Your task to perform on an android device: Search for Italian restaurants on Maps Image 0: 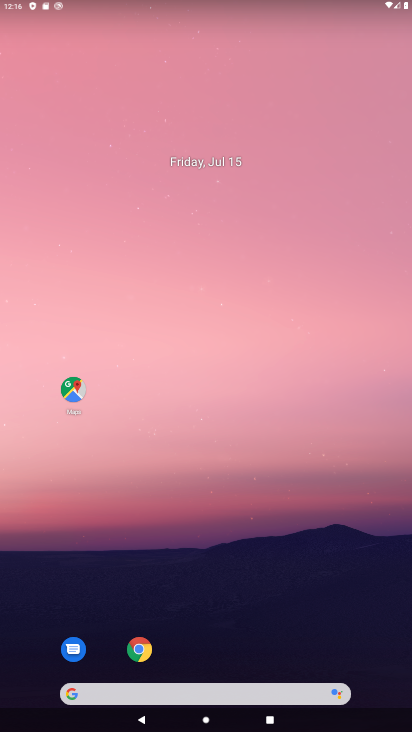
Step 0: click (63, 393)
Your task to perform on an android device: Search for Italian restaurants on Maps Image 1: 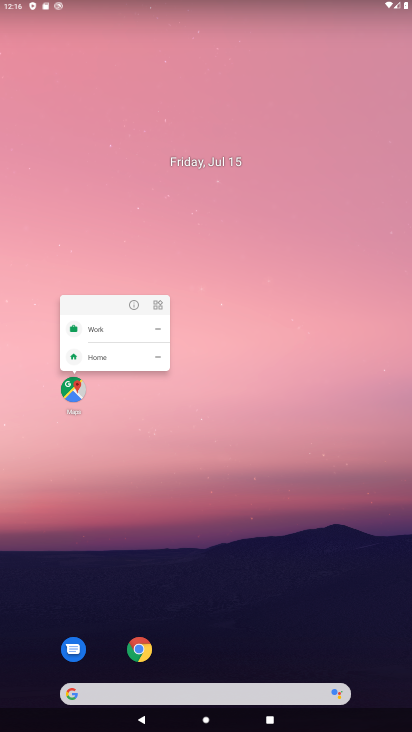
Step 1: click (65, 386)
Your task to perform on an android device: Search for Italian restaurants on Maps Image 2: 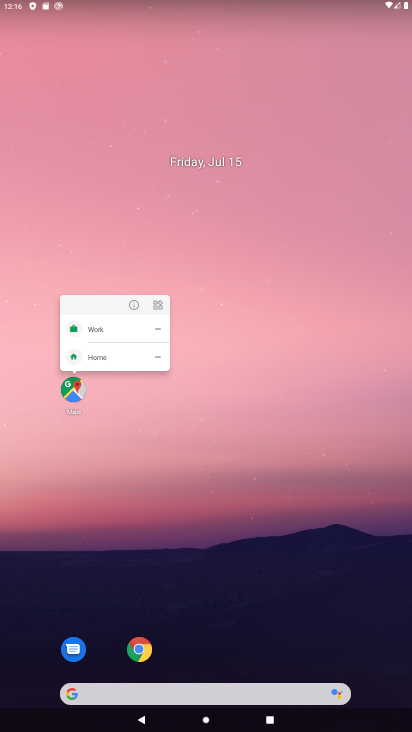
Step 2: click (75, 388)
Your task to perform on an android device: Search for Italian restaurants on Maps Image 3: 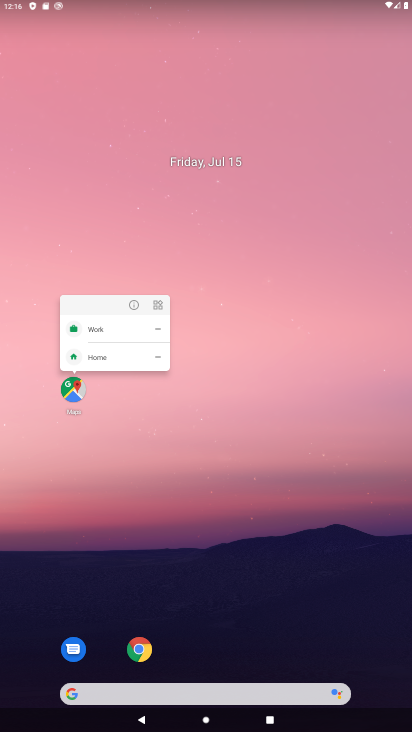
Step 3: click (75, 401)
Your task to perform on an android device: Search for Italian restaurants on Maps Image 4: 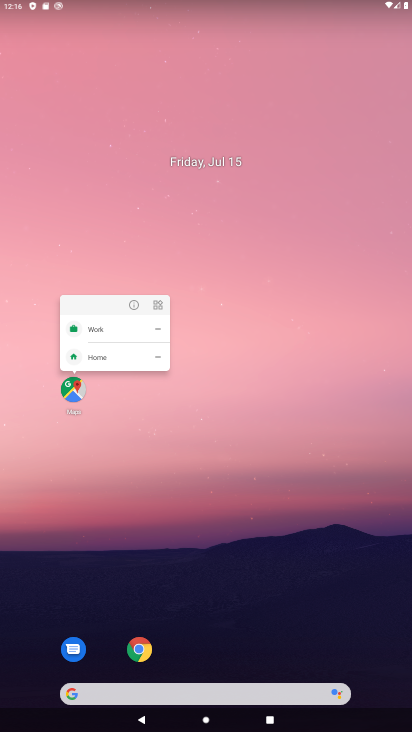
Step 4: click (77, 395)
Your task to perform on an android device: Search for Italian restaurants on Maps Image 5: 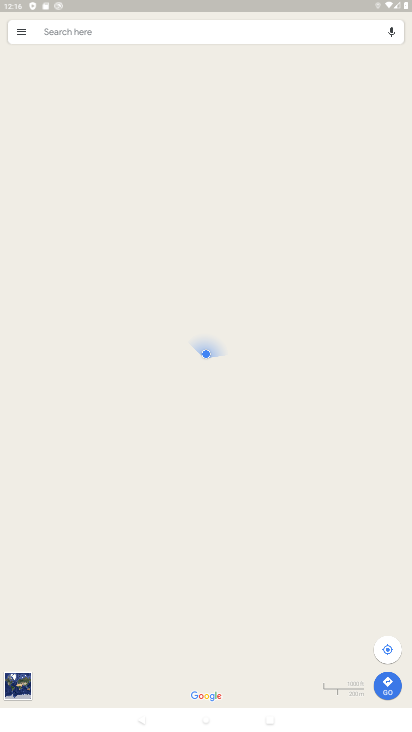
Step 5: click (155, 39)
Your task to perform on an android device: Search for Italian restaurants on Maps Image 6: 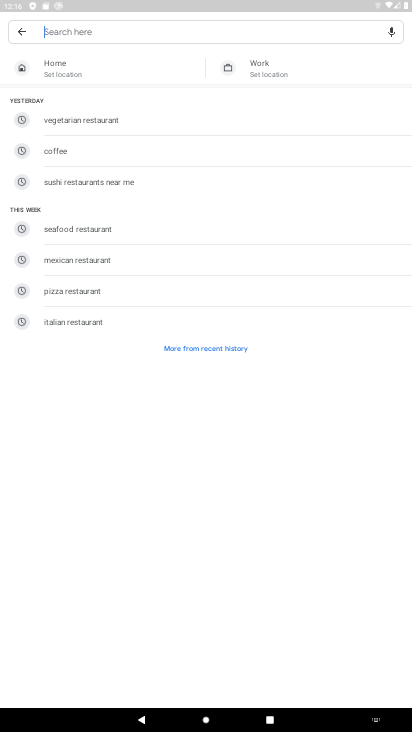
Step 6: type "Italian restaurants"
Your task to perform on an android device: Search for Italian restaurants on Maps Image 7: 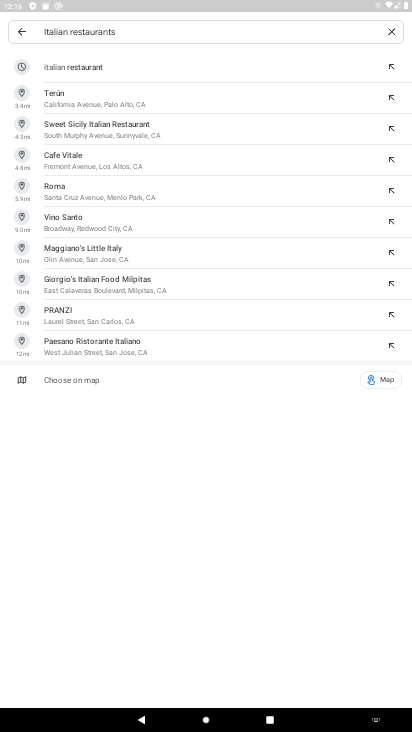
Step 7: click (180, 68)
Your task to perform on an android device: Search for Italian restaurants on Maps Image 8: 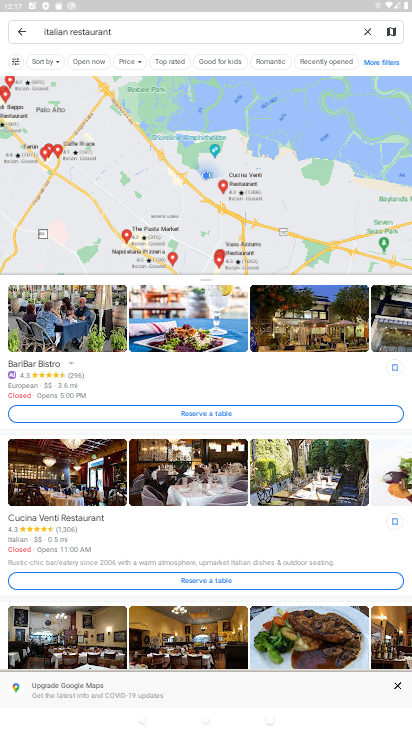
Step 8: task complete